Your task to perform on an android device: check battery use Image 0: 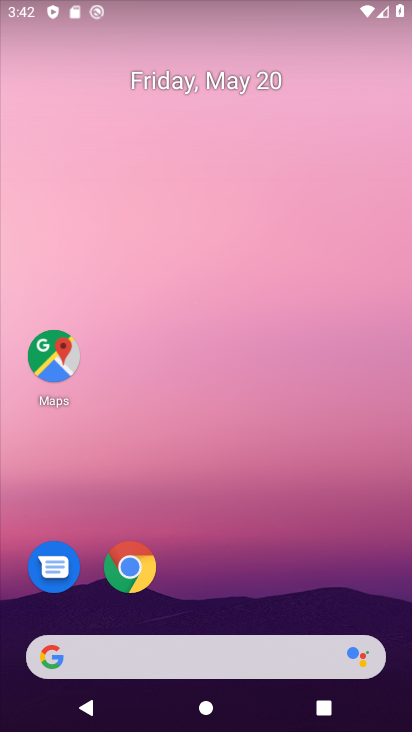
Step 0: drag from (221, 22) to (275, 635)
Your task to perform on an android device: check battery use Image 1: 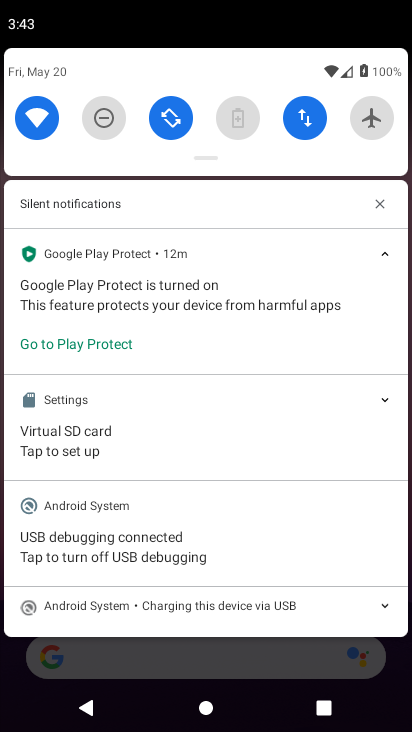
Step 1: drag from (246, 82) to (273, 490)
Your task to perform on an android device: check battery use Image 2: 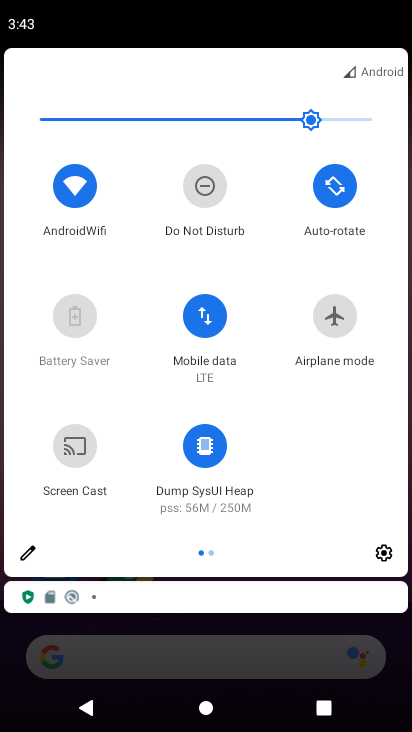
Step 2: click (382, 554)
Your task to perform on an android device: check battery use Image 3: 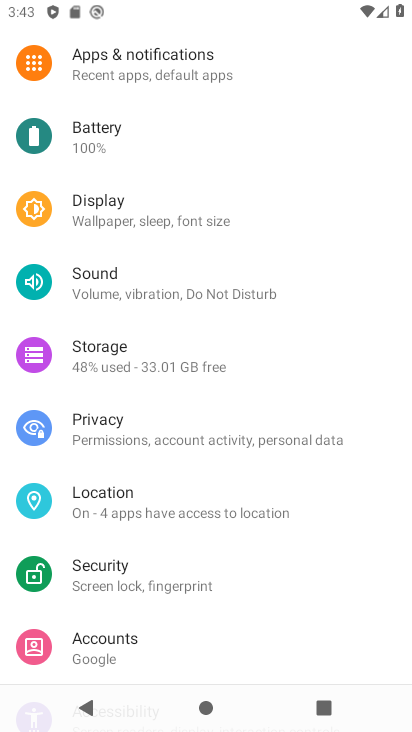
Step 3: click (136, 118)
Your task to perform on an android device: check battery use Image 4: 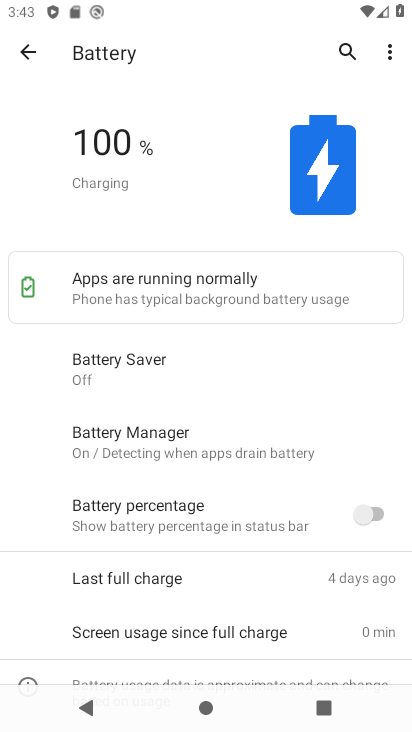
Step 4: click (397, 53)
Your task to perform on an android device: check battery use Image 5: 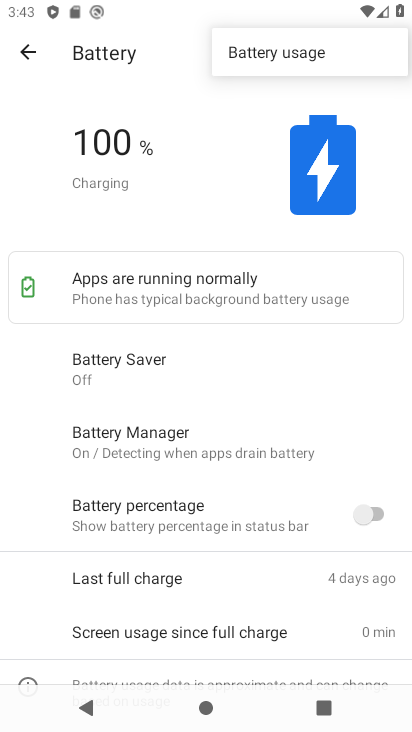
Step 5: click (293, 59)
Your task to perform on an android device: check battery use Image 6: 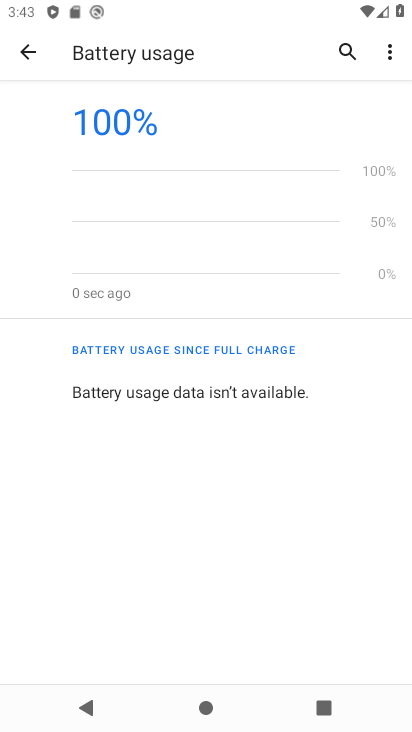
Step 6: task complete